Your task to perform on an android device: What's the weather? Image 0: 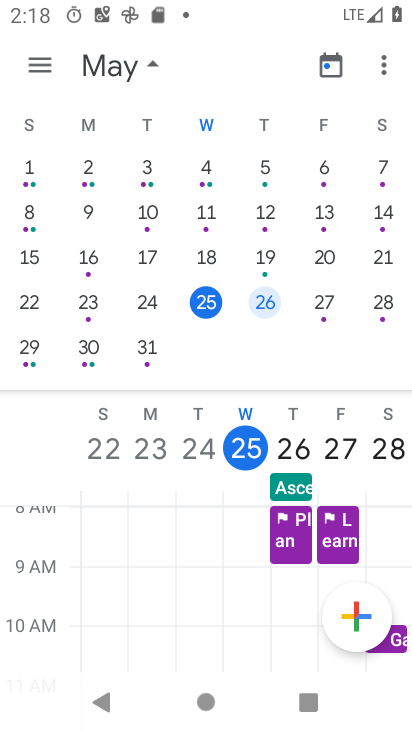
Step 0: press home button
Your task to perform on an android device: What's the weather? Image 1: 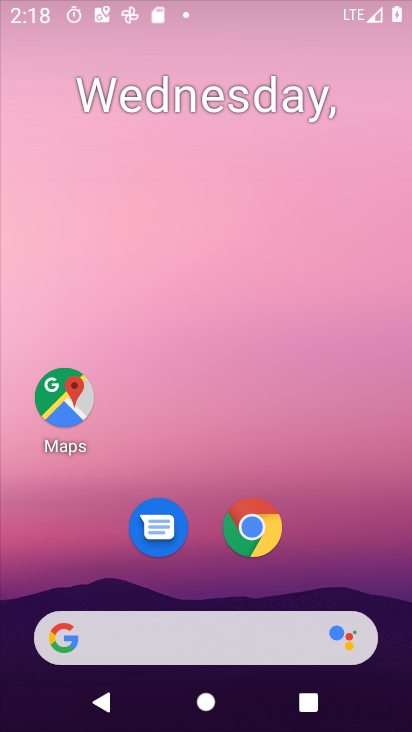
Step 1: drag from (27, 290) to (381, 271)
Your task to perform on an android device: What's the weather? Image 2: 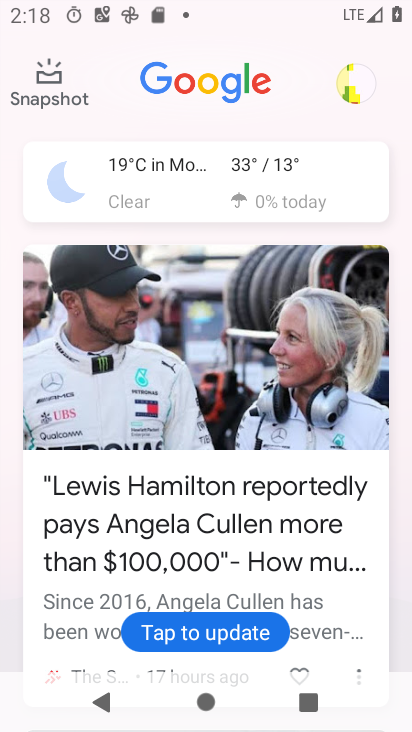
Step 2: click (151, 179)
Your task to perform on an android device: What's the weather? Image 3: 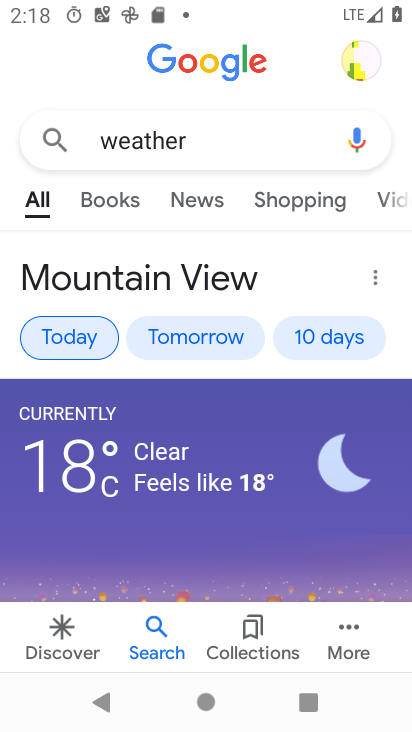
Step 3: task complete